Your task to perform on an android device: Search for Mexican restaurants on Maps Image 0: 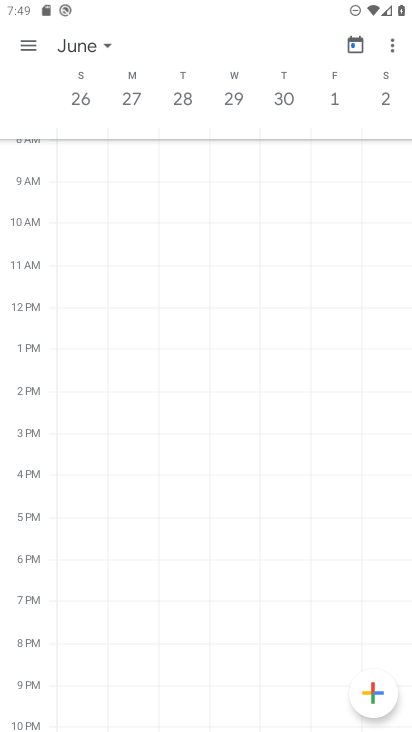
Step 0: press home button
Your task to perform on an android device: Search for Mexican restaurants on Maps Image 1: 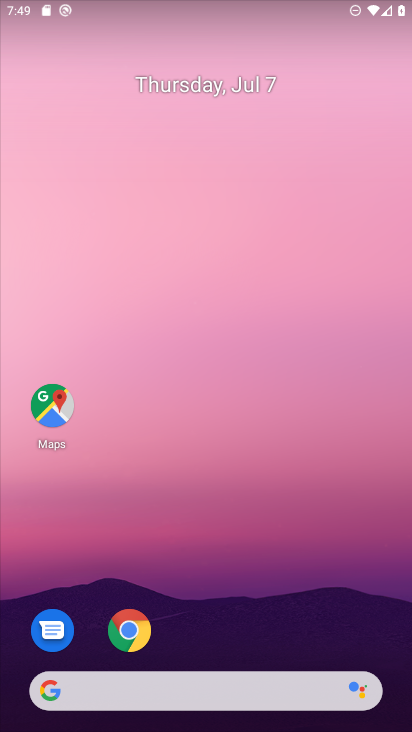
Step 1: click (49, 408)
Your task to perform on an android device: Search for Mexican restaurants on Maps Image 2: 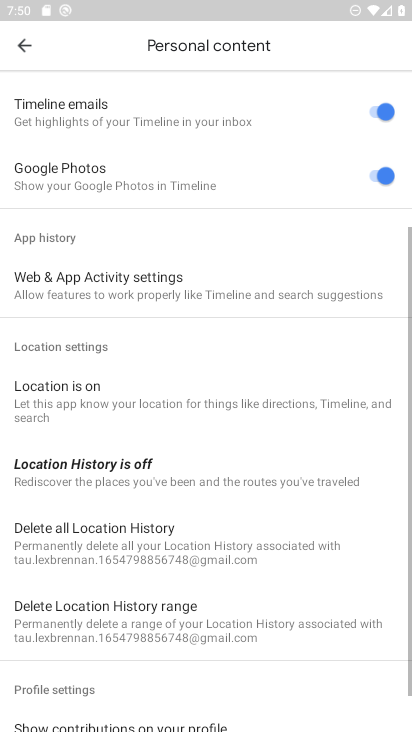
Step 2: click (20, 47)
Your task to perform on an android device: Search for Mexican restaurants on Maps Image 3: 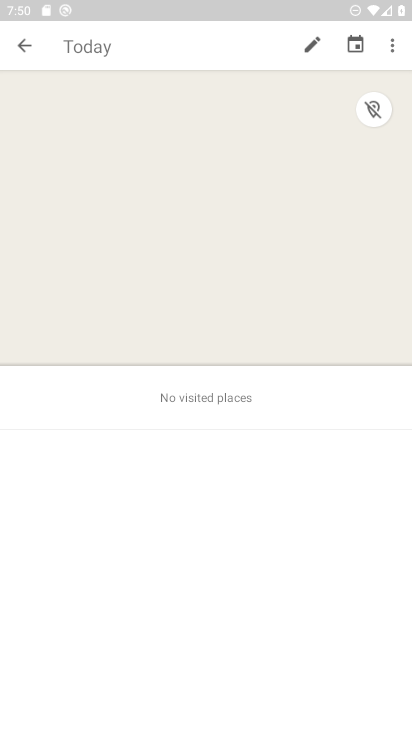
Step 3: click (23, 38)
Your task to perform on an android device: Search for Mexican restaurants on Maps Image 4: 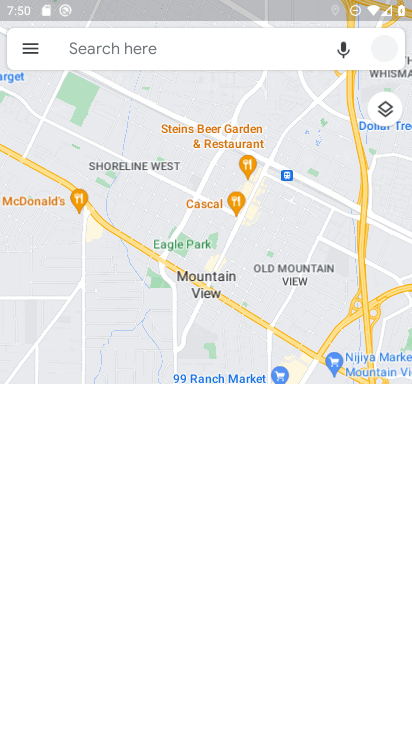
Step 4: click (120, 48)
Your task to perform on an android device: Search for Mexican restaurants on Maps Image 5: 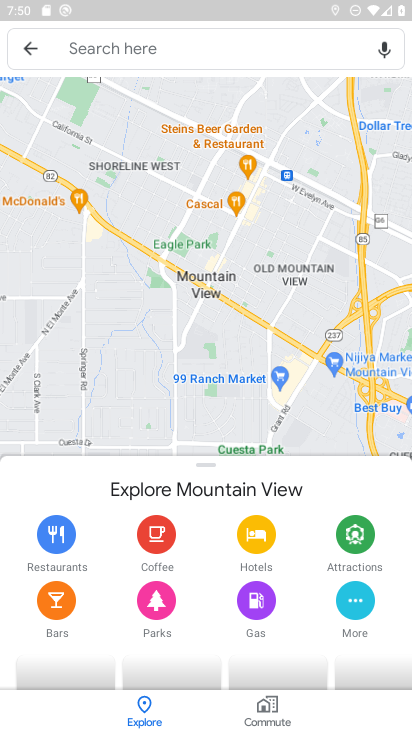
Step 5: click (107, 44)
Your task to perform on an android device: Search for Mexican restaurants on Maps Image 6: 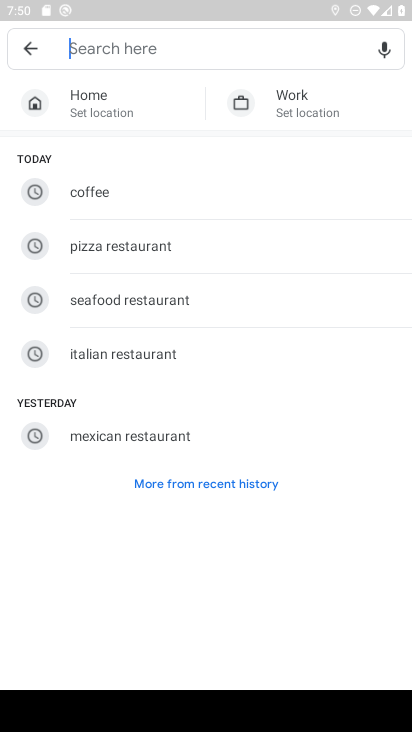
Step 6: click (169, 434)
Your task to perform on an android device: Search for Mexican restaurants on Maps Image 7: 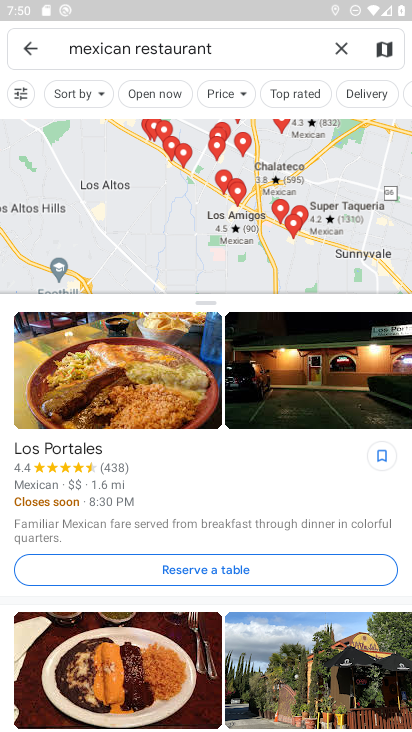
Step 7: task complete